Your task to perform on an android device: turn off location Image 0: 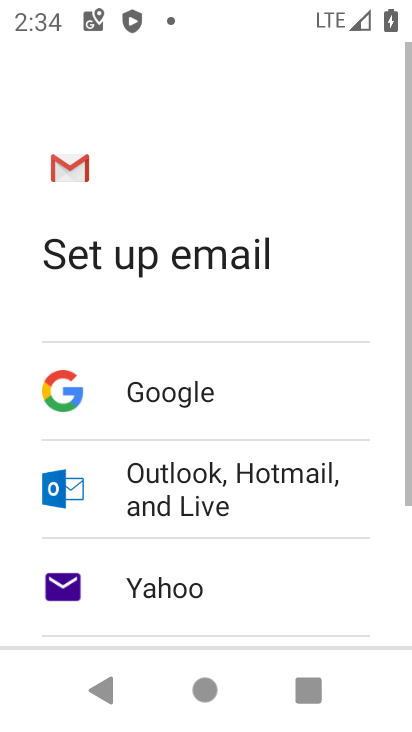
Step 0: press home button
Your task to perform on an android device: turn off location Image 1: 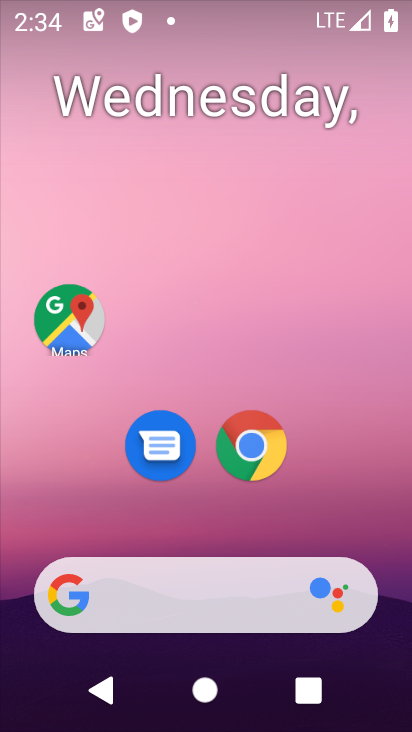
Step 1: drag from (204, 538) to (210, 175)
Your task to perform on an android device: turn off location Image 2: 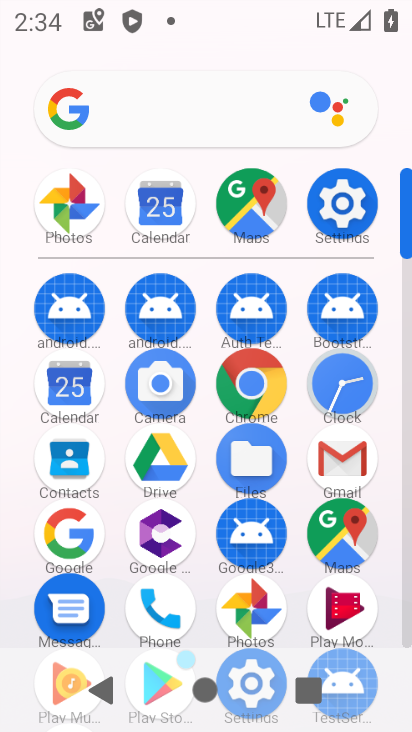
Step 2: click (328, 207)
Your task to perform on an android device: turn off location Image 3: 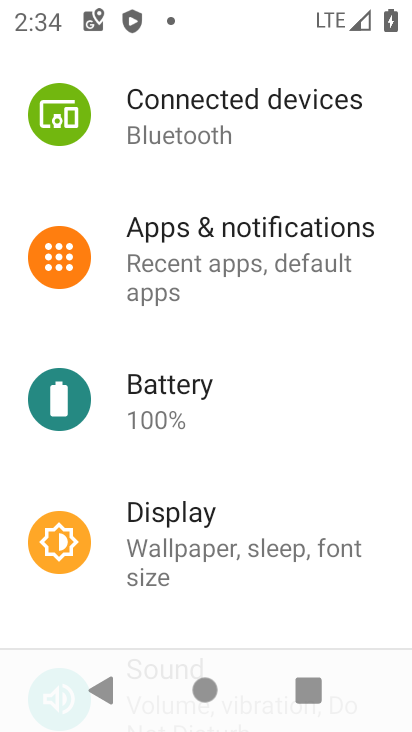
Step 3: drag from (271, 543) to (323, 173)
Your task to perform on an android device: turn off location Image 4: 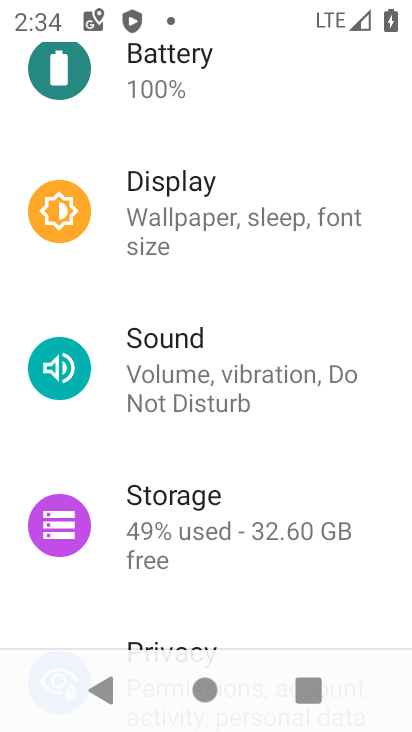
Step 4: drag from (245, 507) to (266, 143)
Your task to perform on an android device: turn off location Image 5: 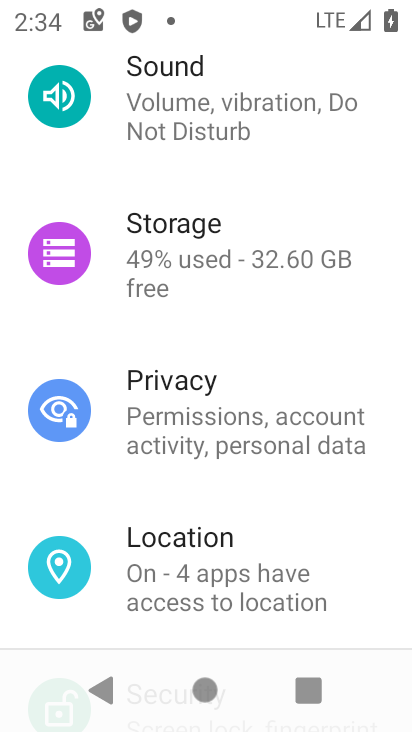
Step 5: click (220, 517)
Your task to perform on an android device: turn off location Image 6: 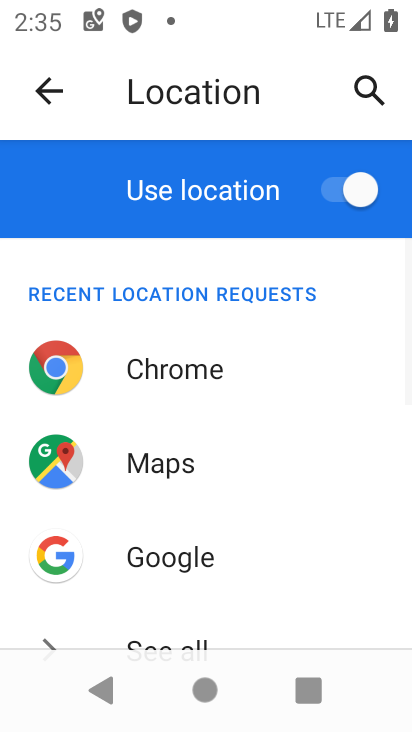
Step 6: click (344, 188)
Your task to perform on an android device: turn off location Image 7: 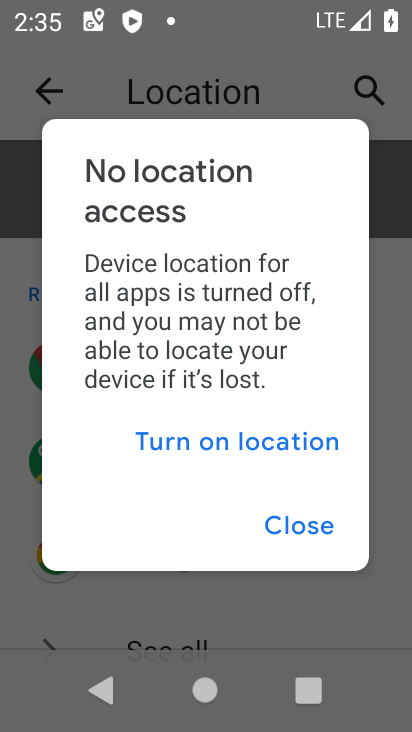
Step 7: task complete